Your task to perform on an android device: turn on showing notifications on the lock screen Image 0: 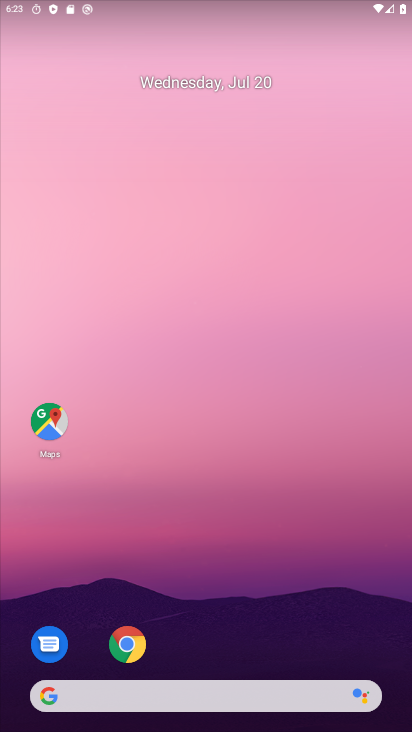
Step 0: press home button
Your task to perform on an android device: turn on showing notifications on the lock screen Image 1: 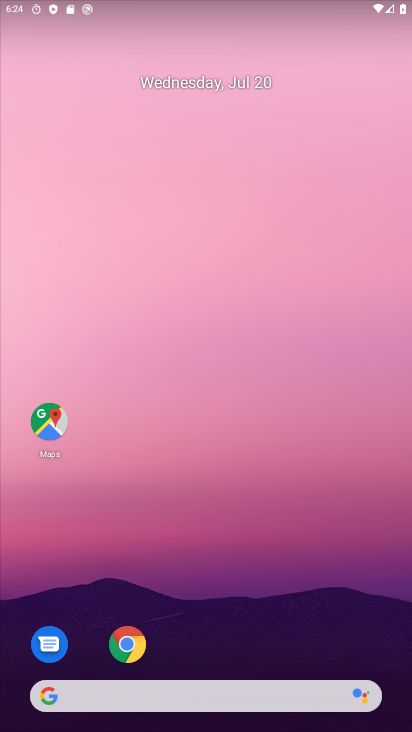
Step 1: drag from (205, 622) to (226, 71)
Your task to perform on an android device: turn on showing notifications on the lock screen Image 2: 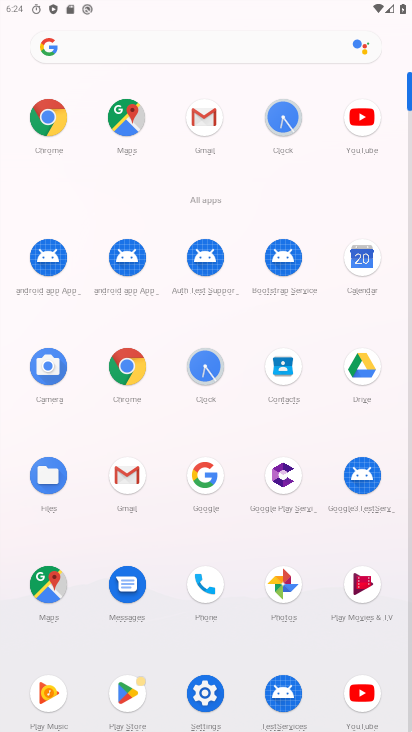
Step 2: click (195, 693)
Your task to perform on an android device: turn on showing notifications on the lock screen Image 3: 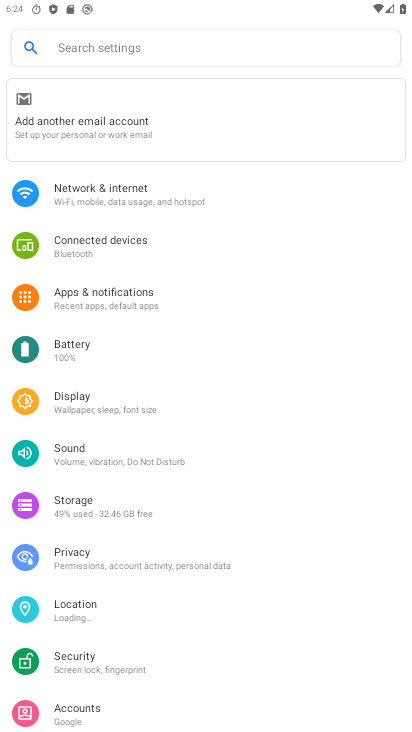
Step 3: click (102, 296)
Your task to perform on an android device: turn on showing notifications on the lock screen Image 4: 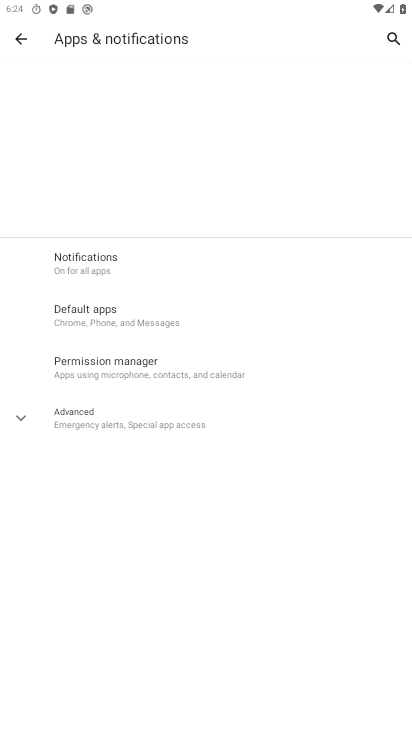
Step 4: click (103, 260)
Your task to perform on an android device: turn on showing notifications on the lock screen Image 5: 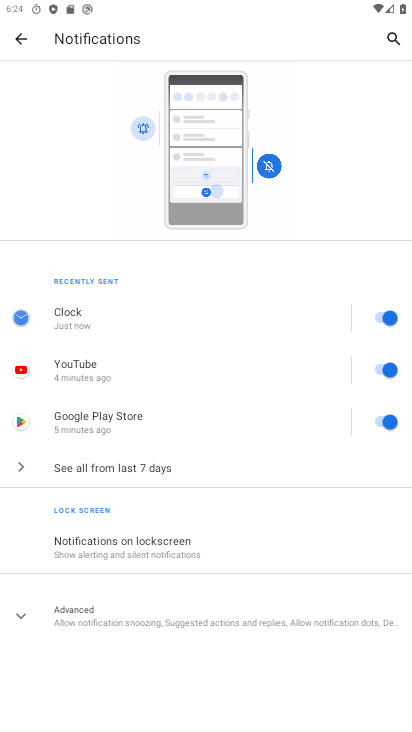
Step 5: click (100, 552)
Your task to perform on an android device: turn on showing notifications on the lock screen Image 6: 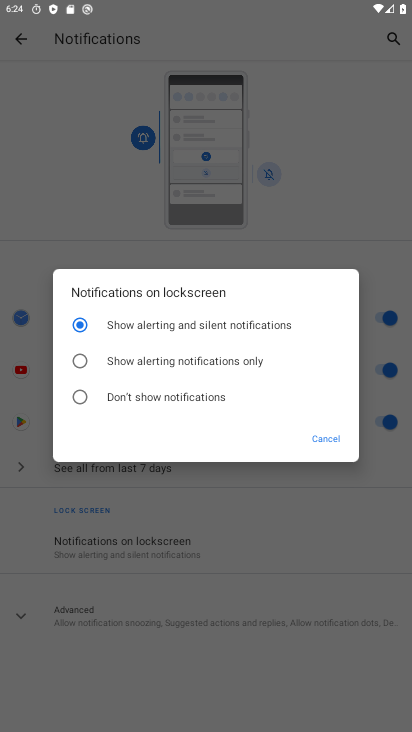
Step 6: task complete